Your task to perform on an android device: Search for Mexican restaurants on Maps Image 0: 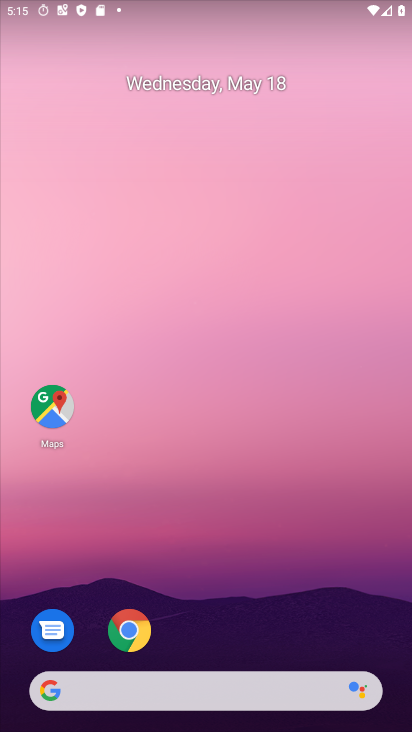
Step 0: click (50, 402)
Your task to perform on an android device: Search for Mexican restaurants on Maps Image 1: 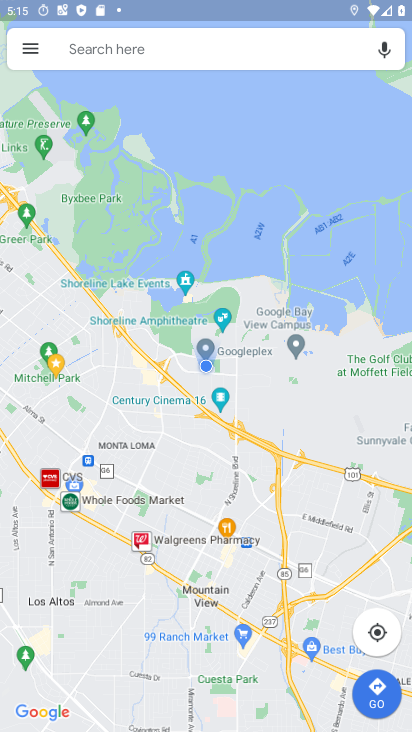
Step 1: click (130, 51)
Your task to perform on an android device: Search for Mexican restaurants on Maps Image 2: 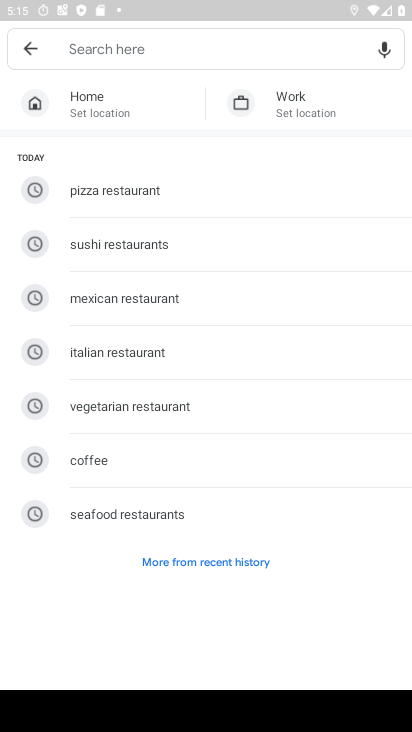
Step 2: click (106, 299)
Your task to perform on an android device: Search for Mexican restaurants on Maps Image 3: 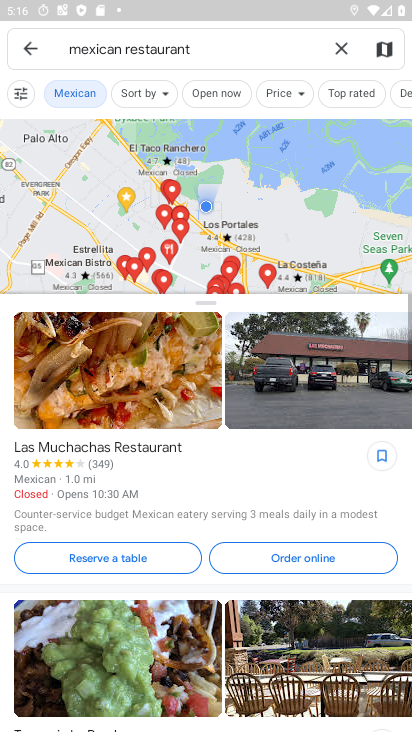
Step 3: task complete